Your task to perform on an android device: Open CNN.com Image 0: 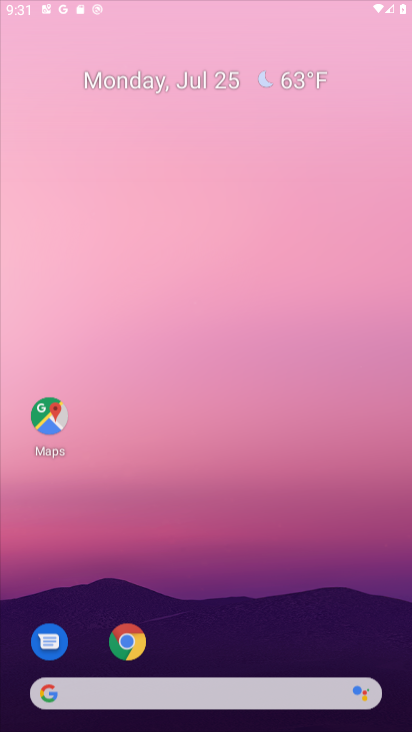
Step 0: drag from (132, 102) to (91, 14)
Your task to perform on an android device: Open CNN.com Image 1: 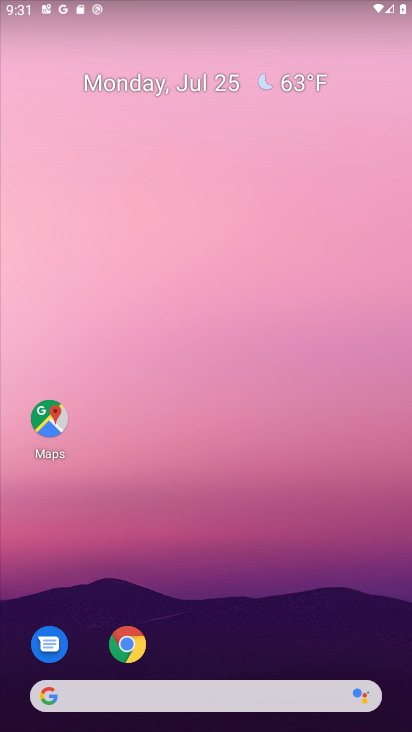
Step 1: drag from (188, 424) to (143, 56)
Your task to perform on an android device: Open CNN.com Image 2: 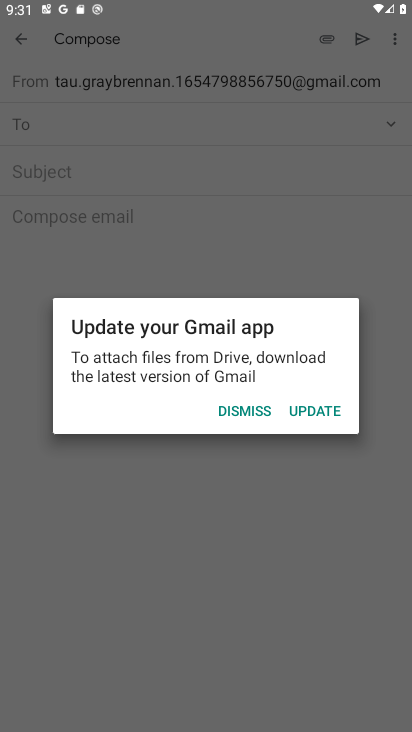
Step 2: click (258, 407)
Your task to perform on an android device: Open CNN.com Image 3: 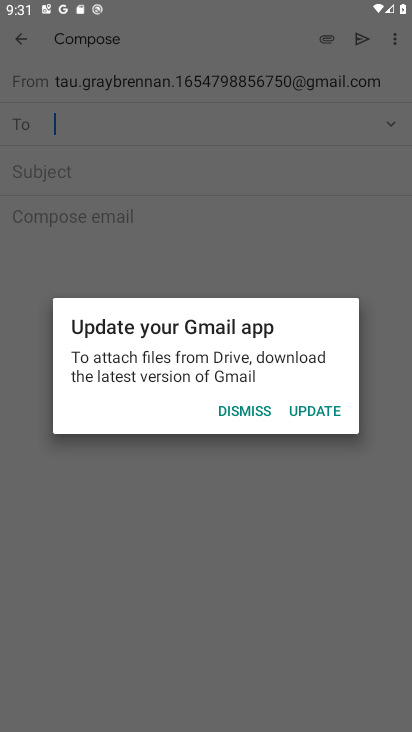
Step 3: click (258, 407)
Your task to perform on an android device: Open CNN.com Image 4: 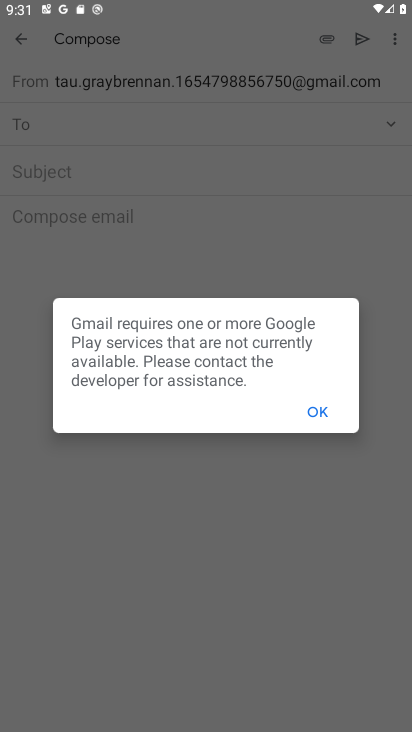
Step 4: click (321, 416)
Your task to perform on an android device: Open CNN.com Image 5: 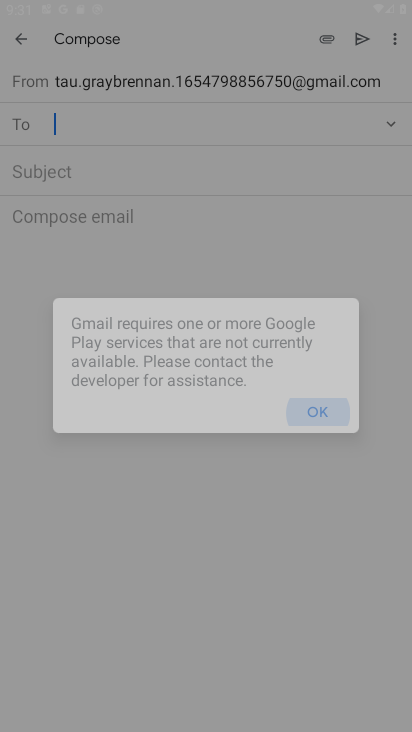
Step 5: click (320, 415)
Your task to perform on an android device: Open CNN.com Image 6: 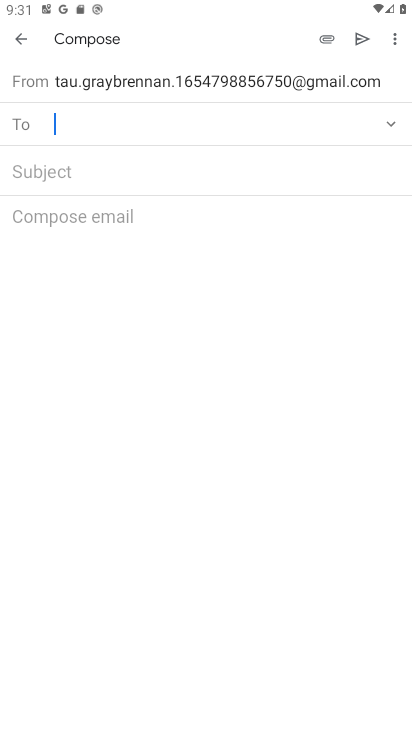
Step 6: click (319, 414)
Your task to perform on an android device: Open CNN.com Image 7: 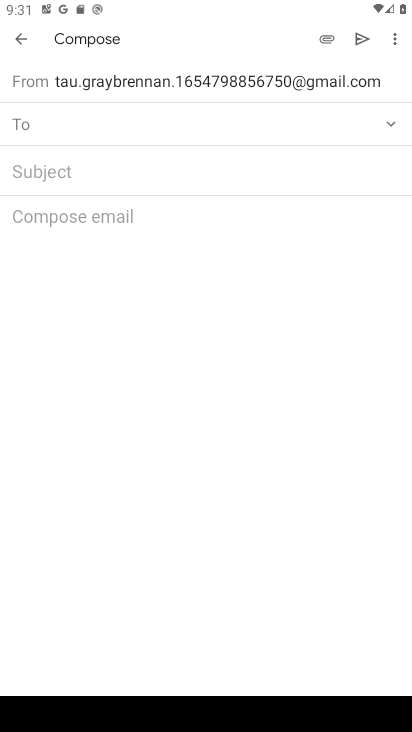
Step 7: click (18, 25)
Your task to perform on an android device: Open CNN.com Image 8: 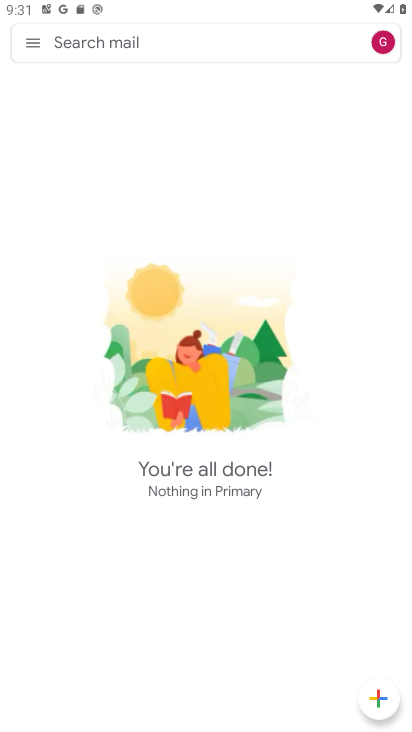
Step 8: click (34, 45)
Your task to perform on an android device: Open CNN.com Image 9: 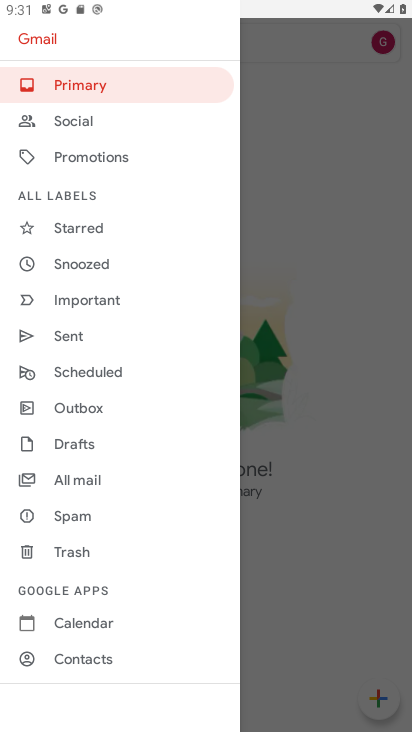
Step 9: click (320, 177)
Your task to perform on an android device: Open CNN.com Image 10: 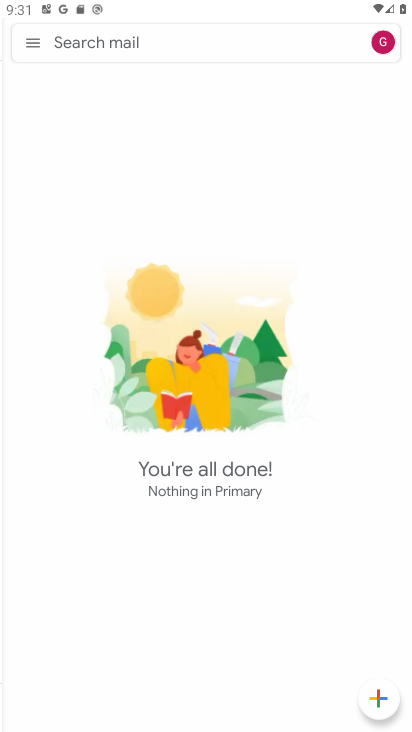
Step 10: click (320, 177)
Your task to perform on an android device: Open CNN.com Image 11: 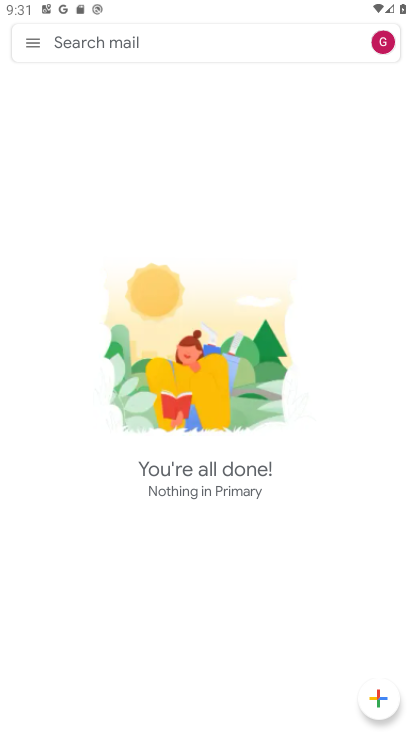
Step 11: press back button
Your task to perform on an android device: Open CNN.com Image 12: 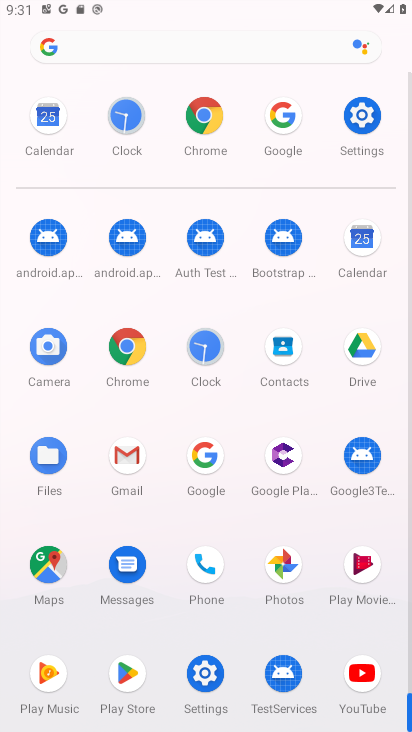
Step 12: click (196, 119)
Your task to perform on an android device: Open CNN.com Image 13: 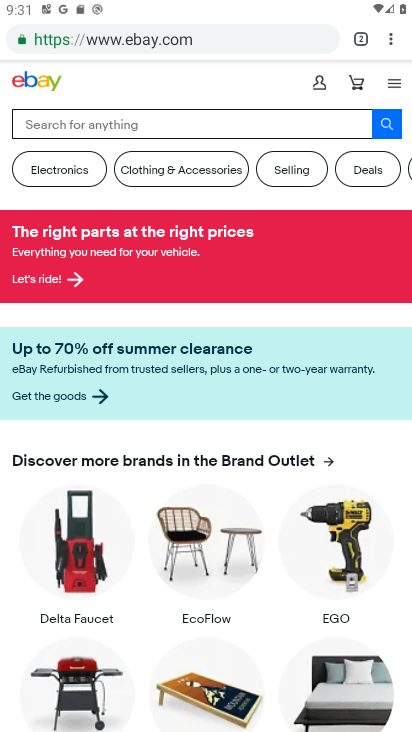
Step 13: click (89, 39)
Your task to perform on an android device: Open CNN.com Image 14: 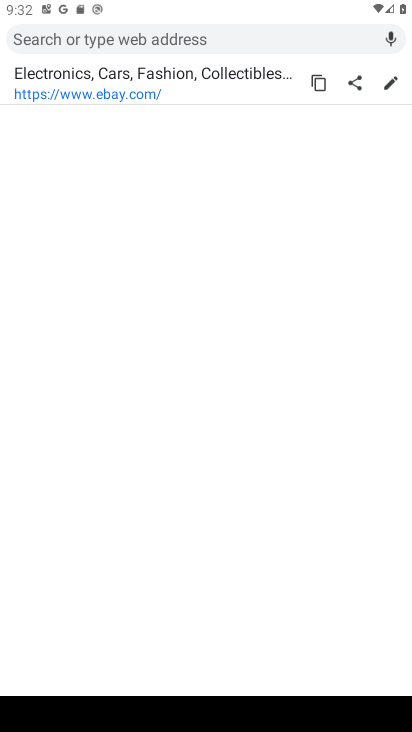
Step 14: type "CNN.com"
Your task to perform on an android device: Open CNN.com Image 15: 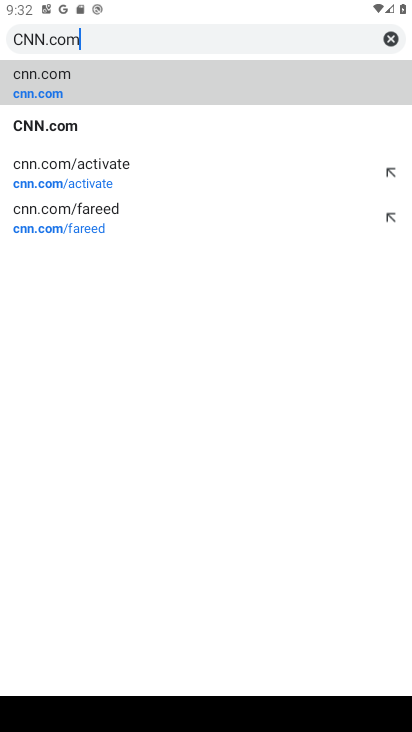
Step 15: click (23, 90)
Your task to perform on an android device: Open CNN.com Image 16: 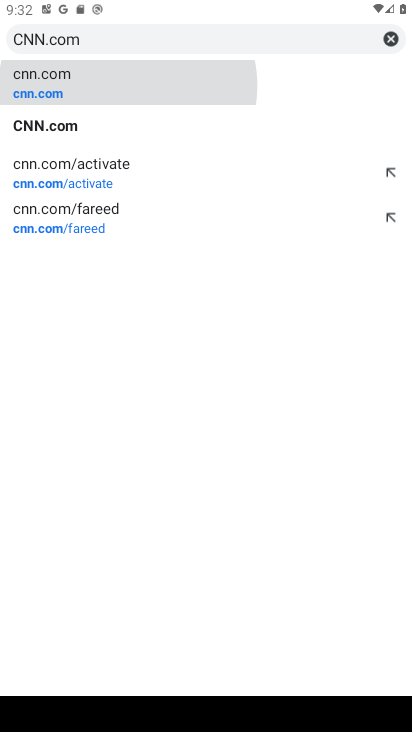
Step 16: click (24, 89)
Your task to perform on an android device: Open CNN.com Image 17: 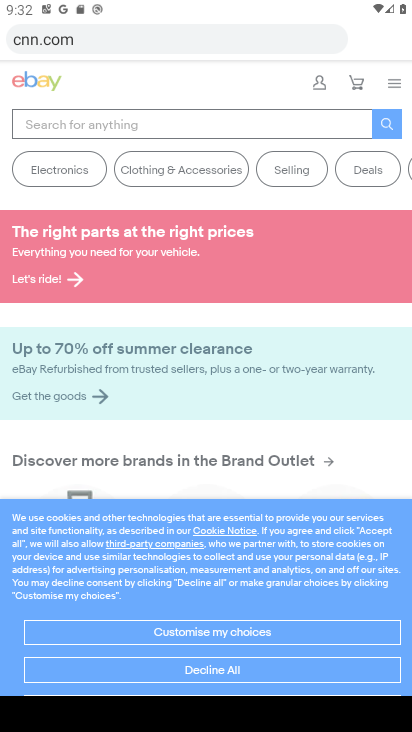
Step 17: click (29, 88)
Your task to perform on an android device: Open CNN.com Image 18: 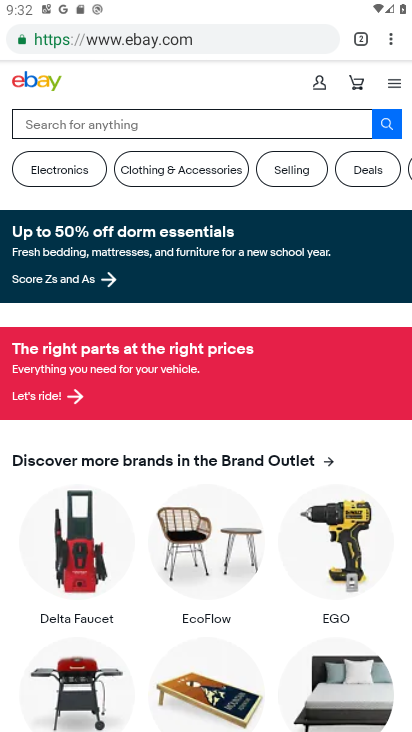
Step 18: task complete